Your task to perform on an android device: Empty the shopping cart on amazon. Add "dell alienware" to the cart on amazon Image 0: 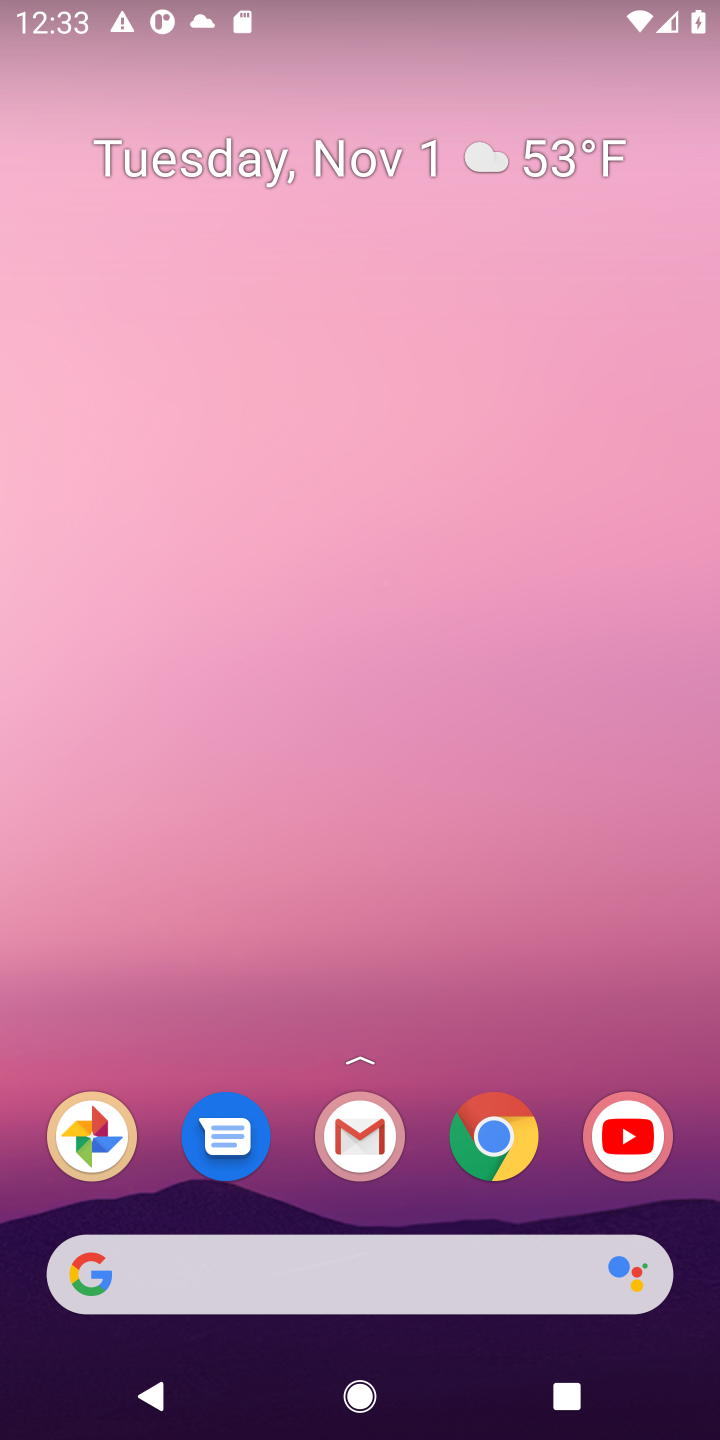
Step 0: press home button
Your task to perform on an android device: Empty the shopping cart on amazon. Add "dell alienware" to the cart on amazon Image 1: 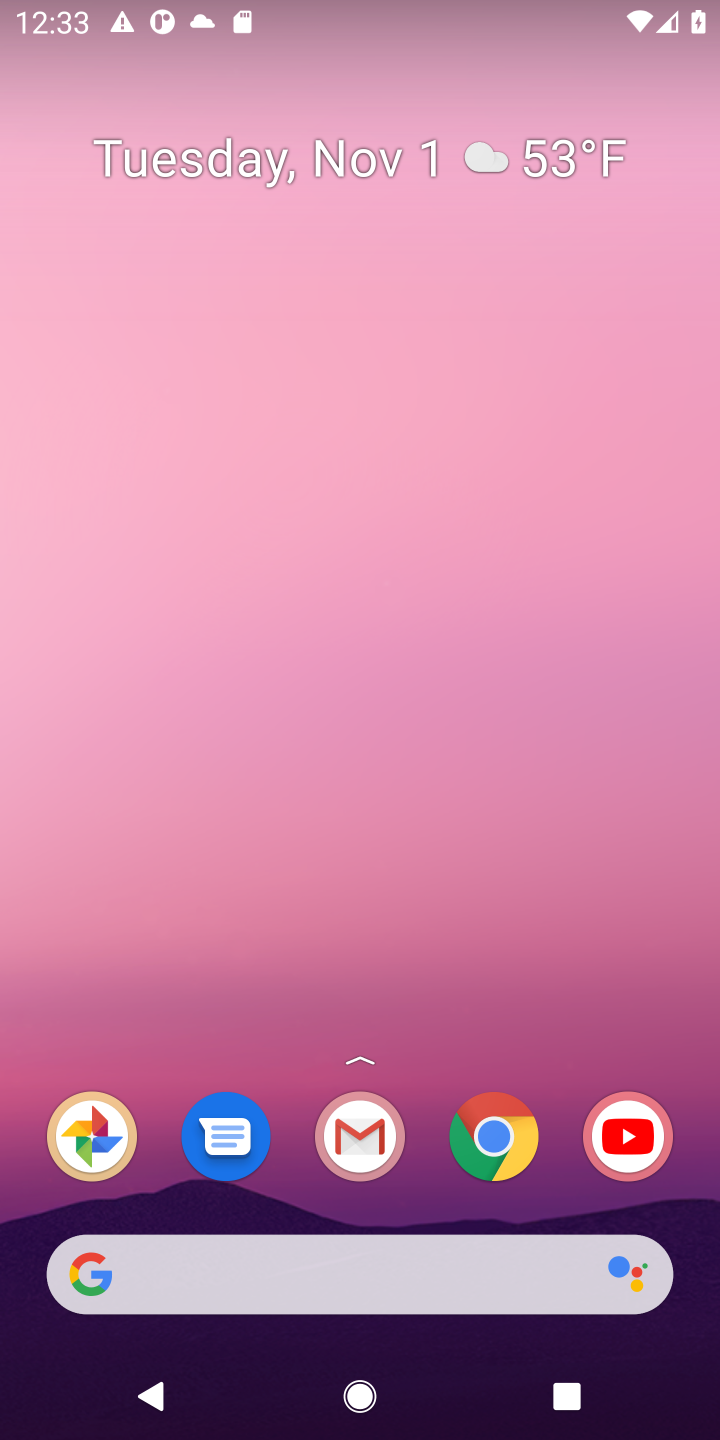
Step 1: click (187, 1287)
Your task to perform on an android device: Empty the shopping cart on amazon. Add "dell alienware" to the cart on amazon Image 2: 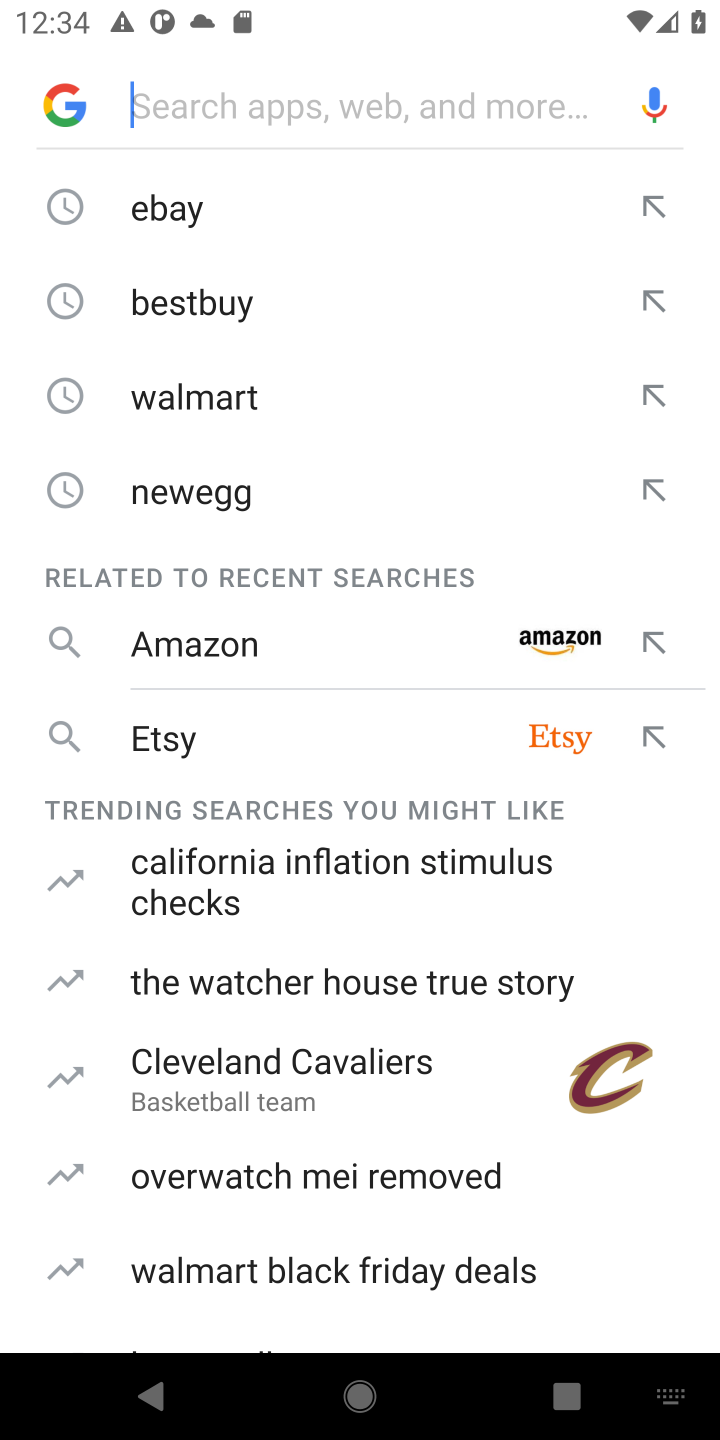
Step 2: type "amazon"
Your task to perform on an android device: Empty the shopping cart on amazon. Add "dell alienware" to the cart on amazon Image 3: 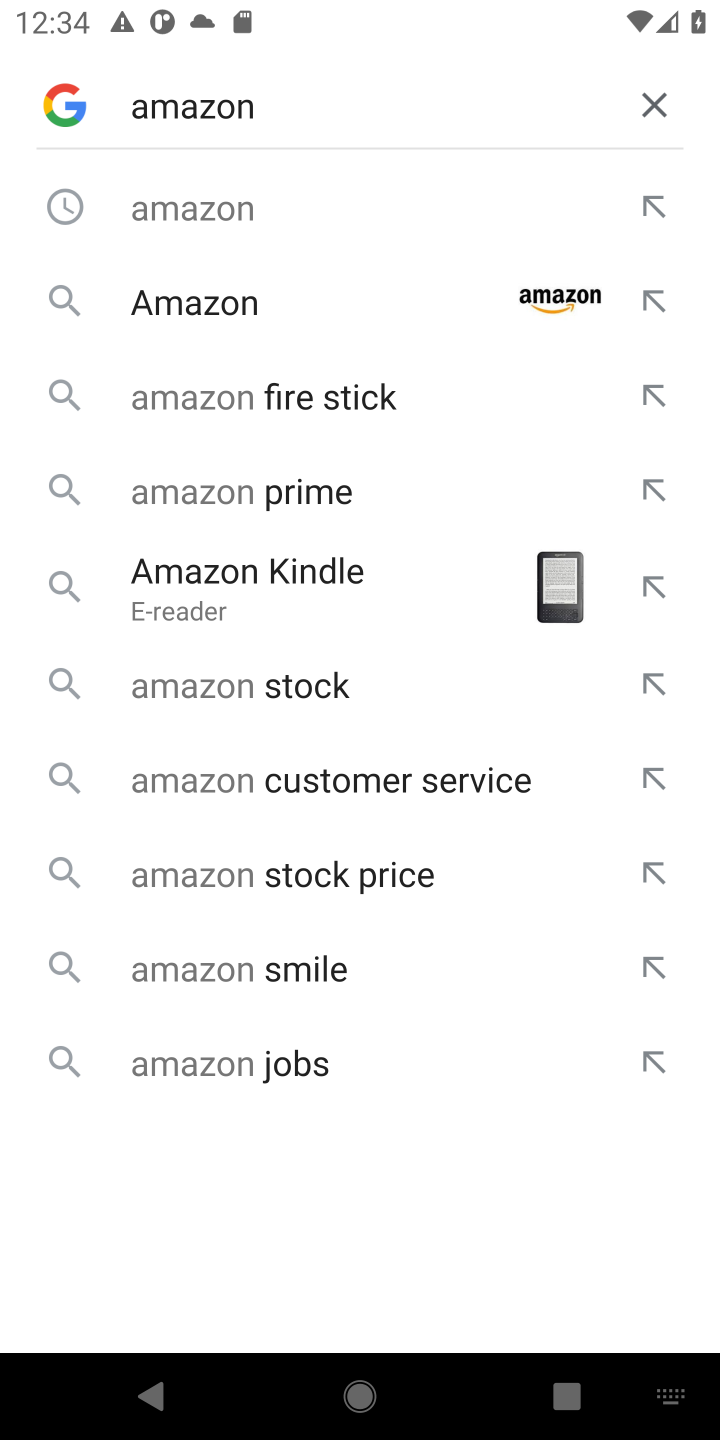
Step 3: press enter
Your task to perform on an android device: Empty the shopping cart on amazon. Add "dell alienware" to the cart on amazon Image 4: 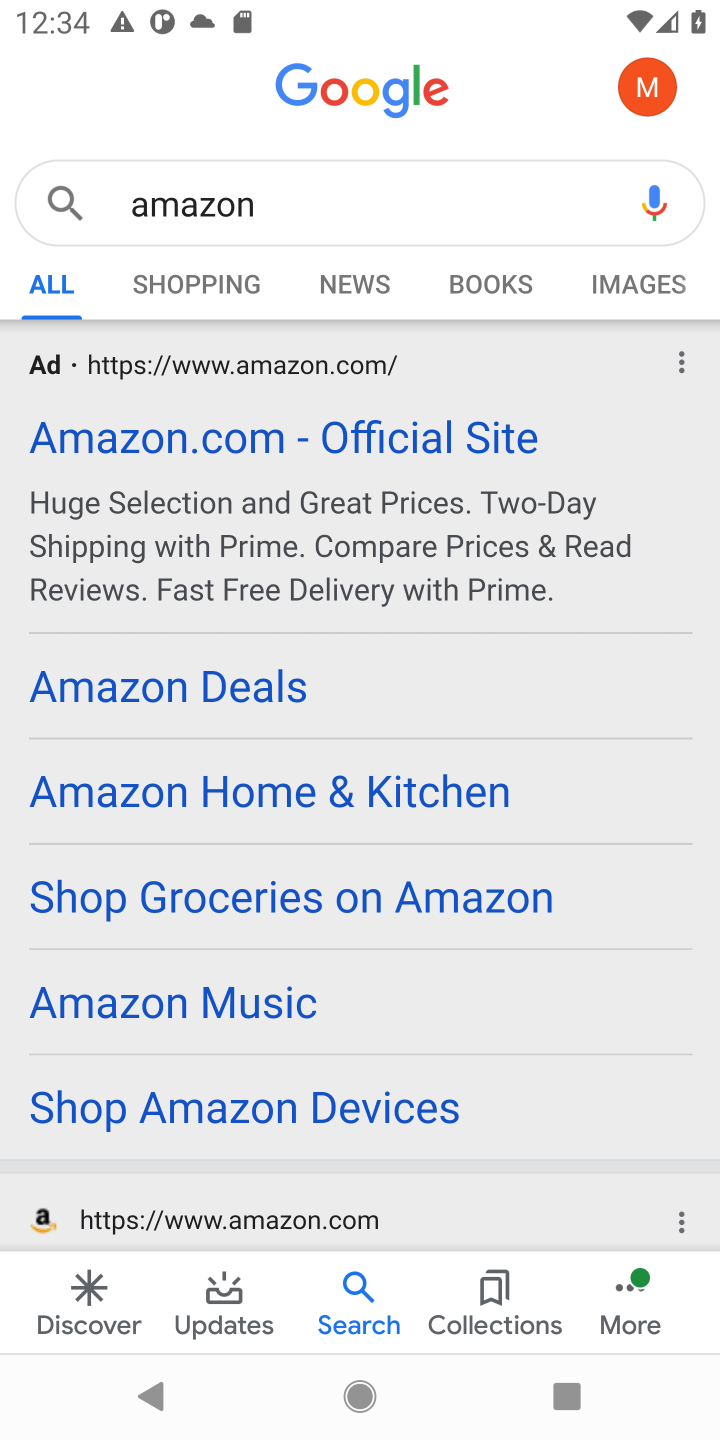
Step 4: click (179, 270)
Your task to perform on an android device: Empty the shopping cart on amazon. Add "dell alienware" to the cart on amazon Image 5: 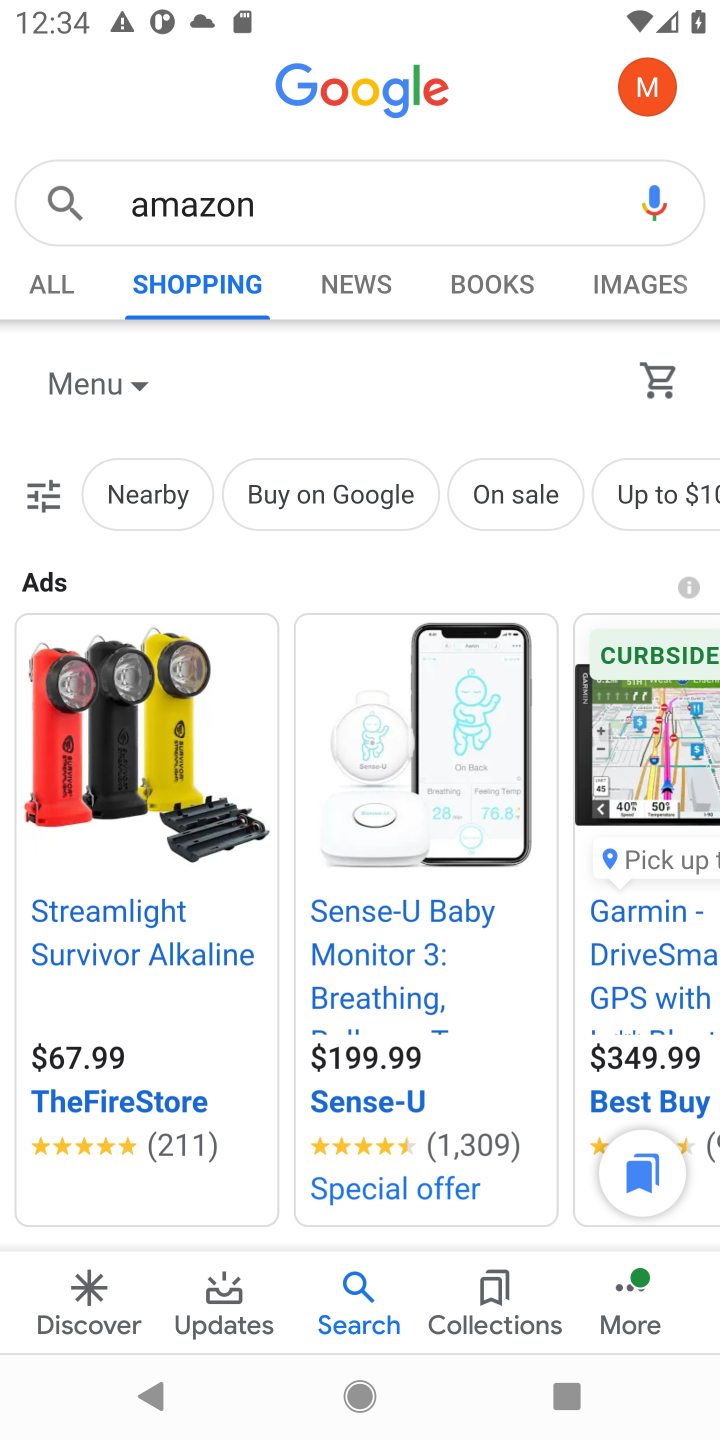
Step 5: drag from (366, 1064) to (442, 365)
Your task to perform on an android device: Empty the shopping cart on amazon. Add "dell alienware" to the cart on amazon Image 6: 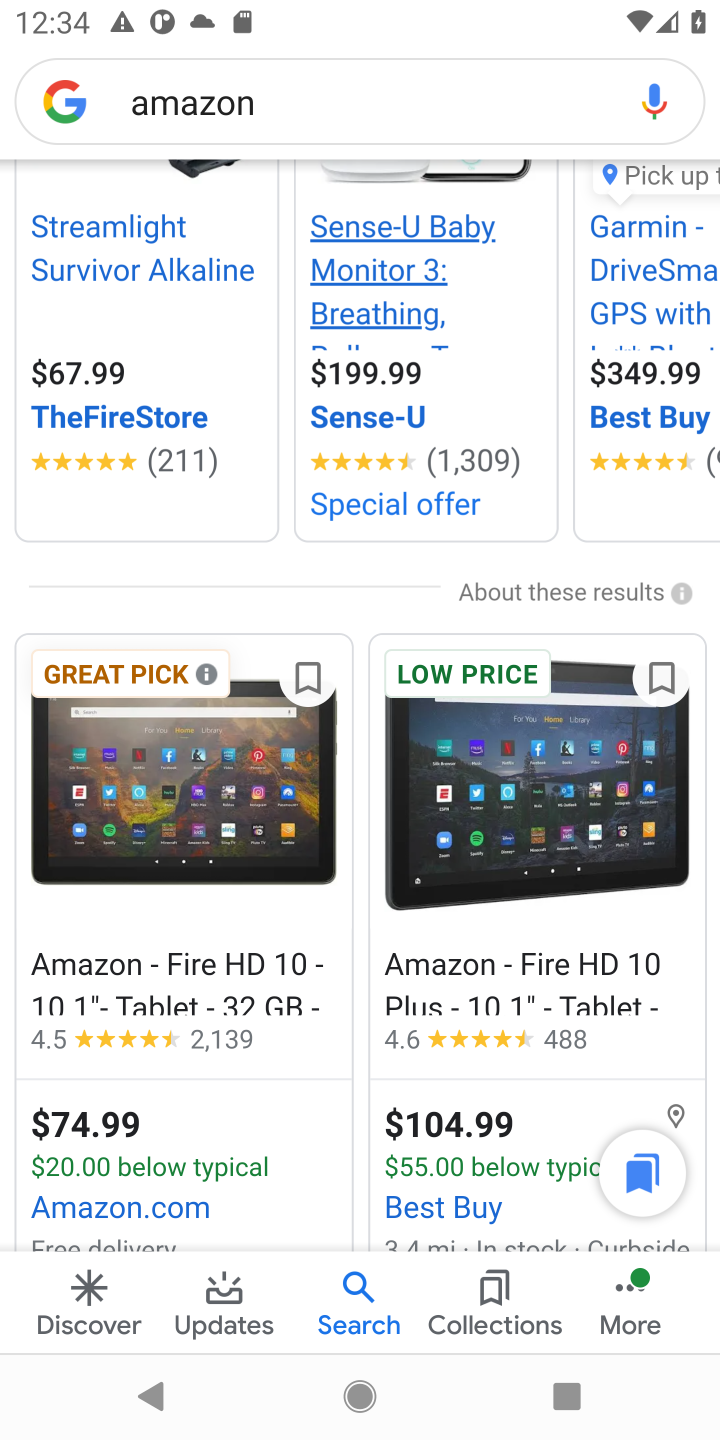
Step 6: drag from (371, 975) to (435, 223)
Your task to perform on an android device: Empty the shopping cart on amazon. Add "dell alienware" to the cart on amazon Image 7: 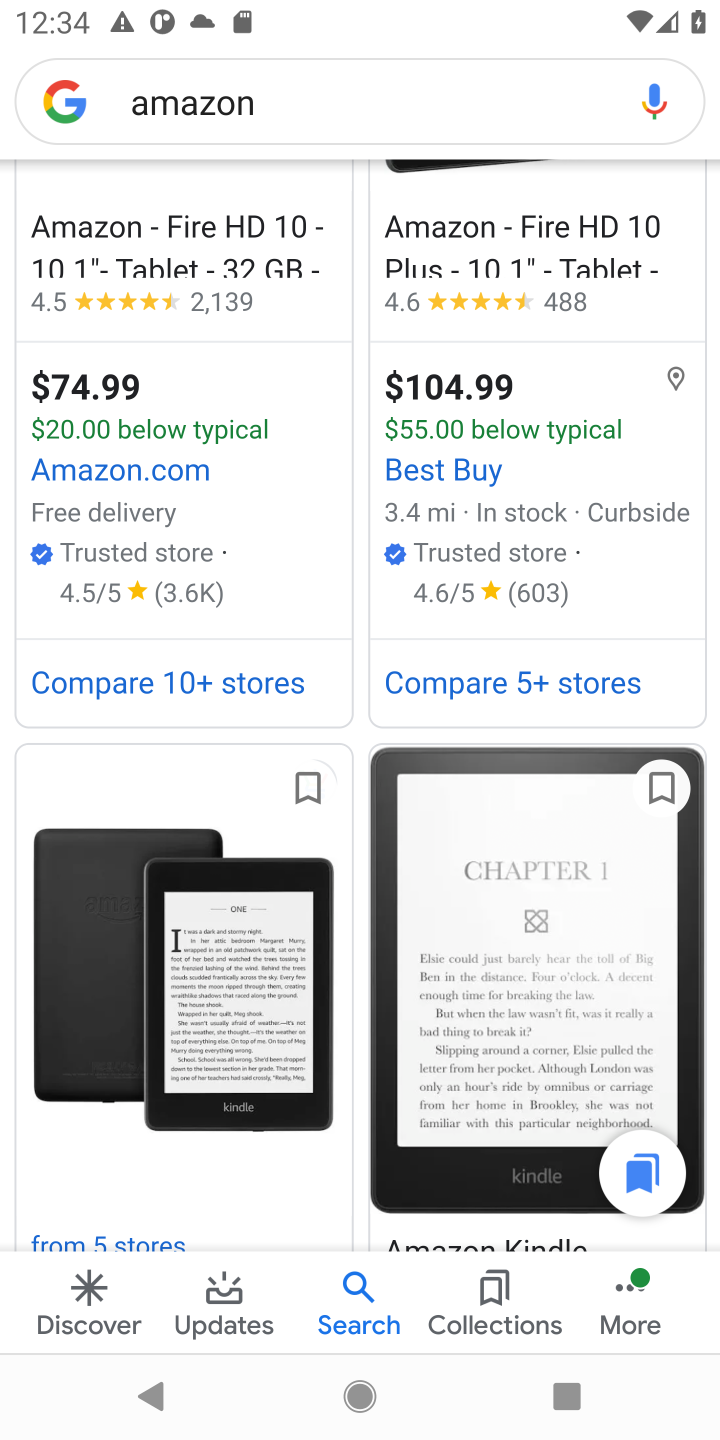
Step 7: press back button
Your task to perform on an android device: Empty the shopping cart on amazon. Add "dell alienware" to the cart on amazon Image 8: 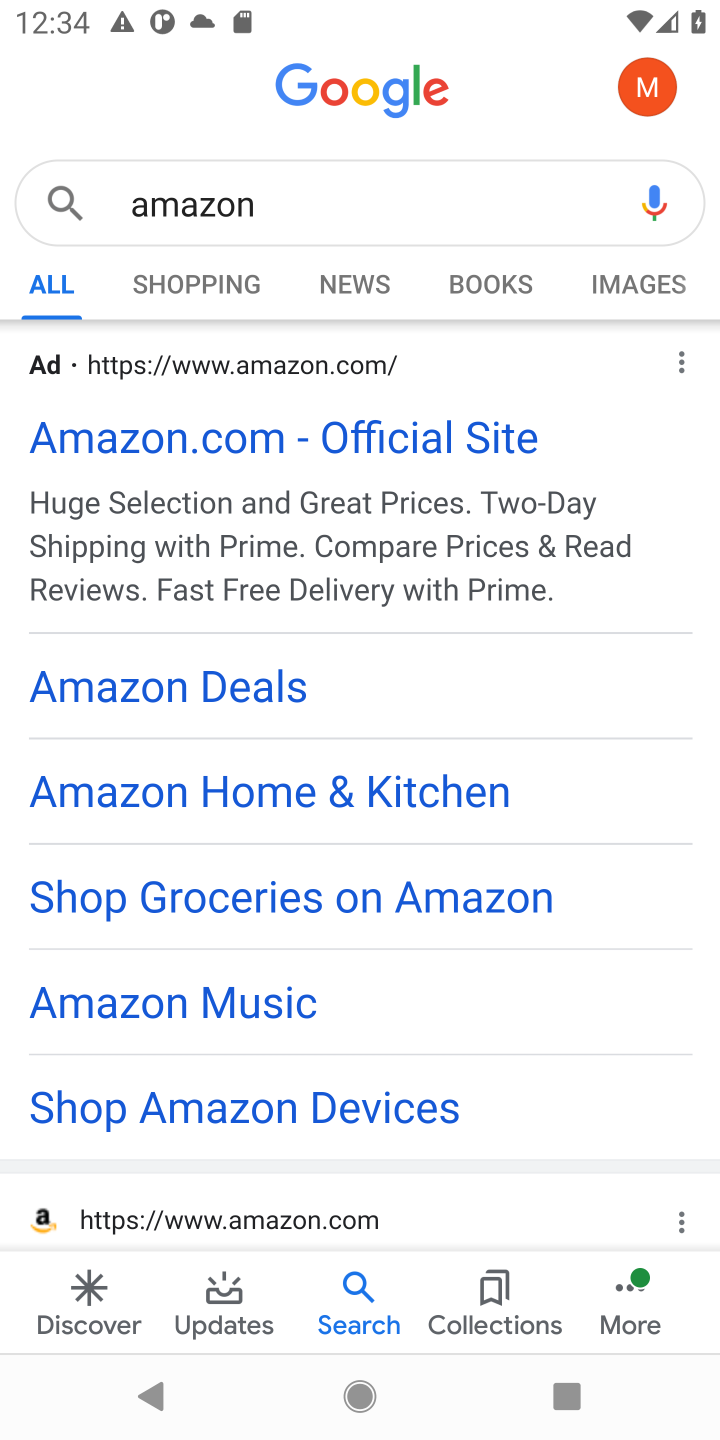
Step 8: click (163, 446)
Your task to perform on an android device: Empty the shopping cart on amazon. Add "dell alienware" to the cart on amazon Image 9: 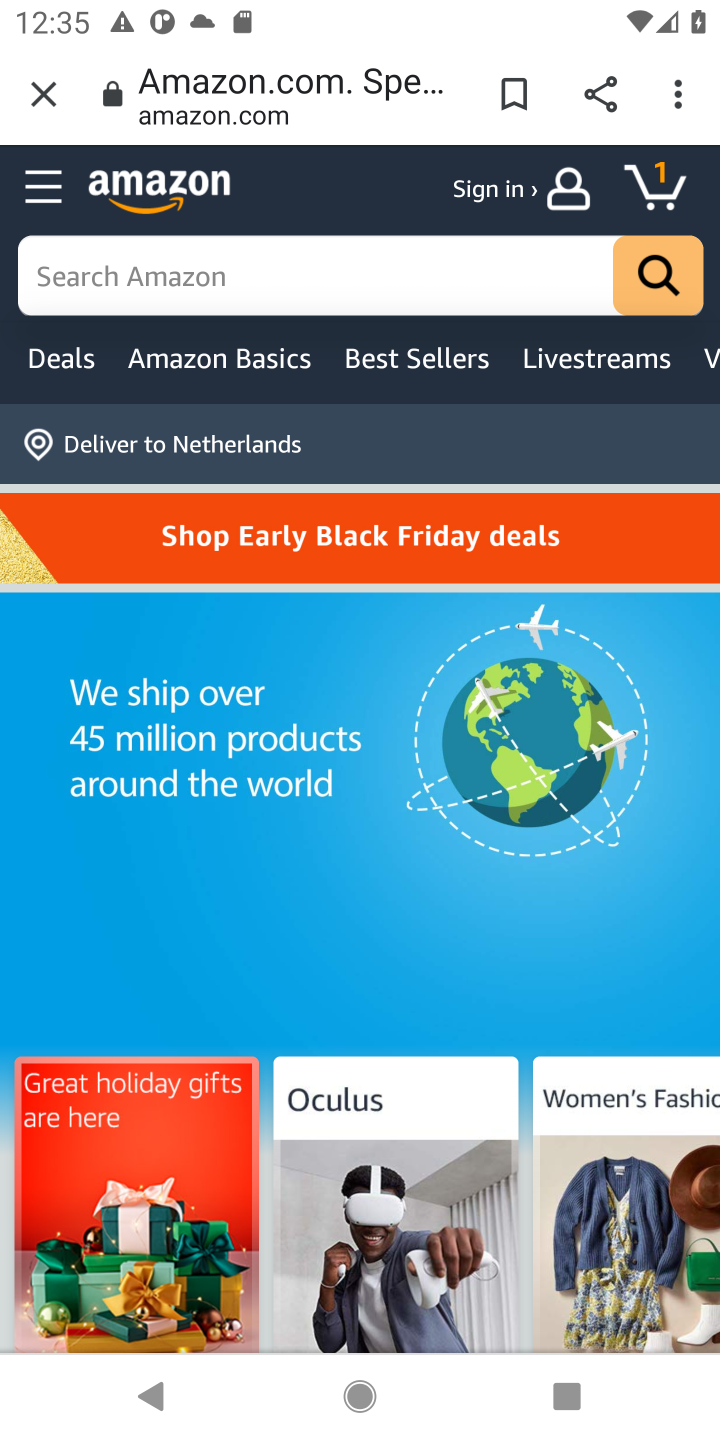
Step 9: click (664, 176)
Your task to perform on an android device: Empty the shopping cart on amazon. Add "dell alienware" to the cart on amazon Image 10: 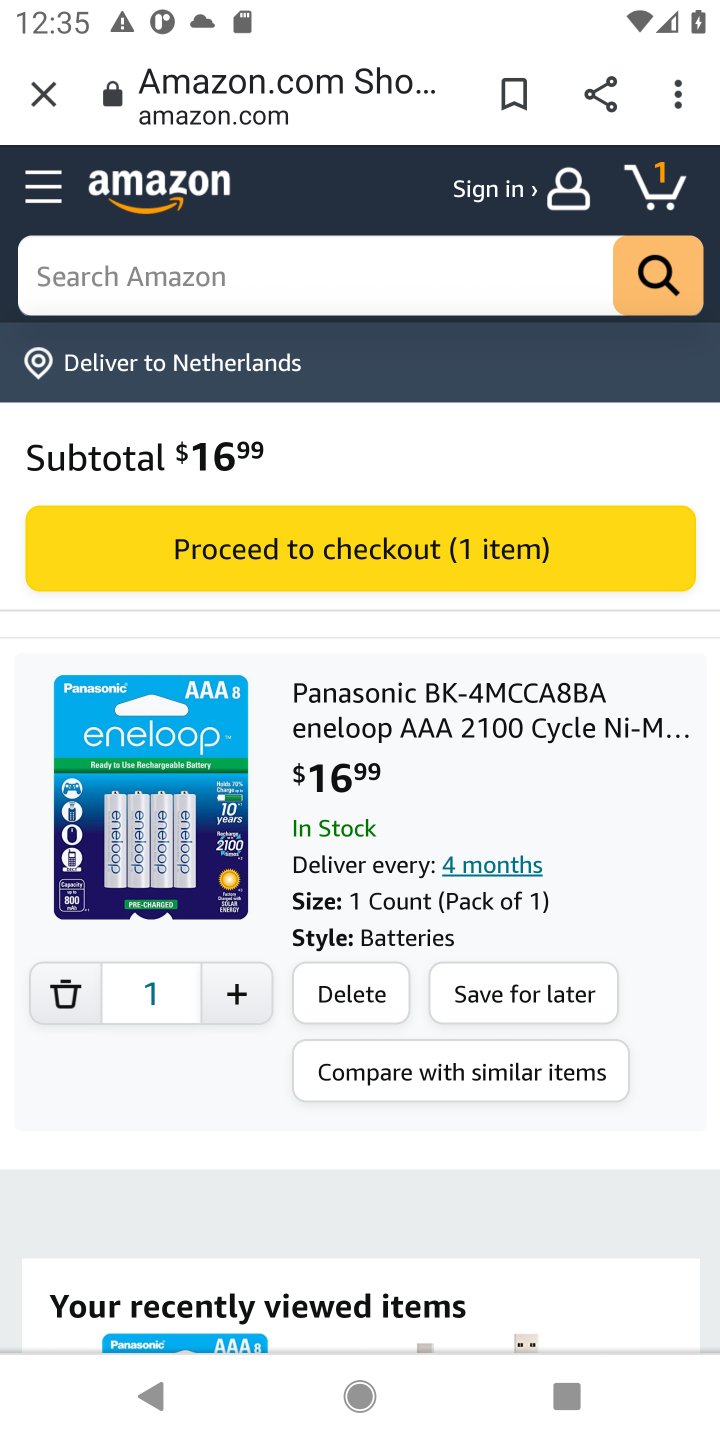
Step 10: click (665, 180)
Your task to perform on an android device: Empty the shopping cart on amazon. Add "dell alienware" to the cart on amazon Image 11: 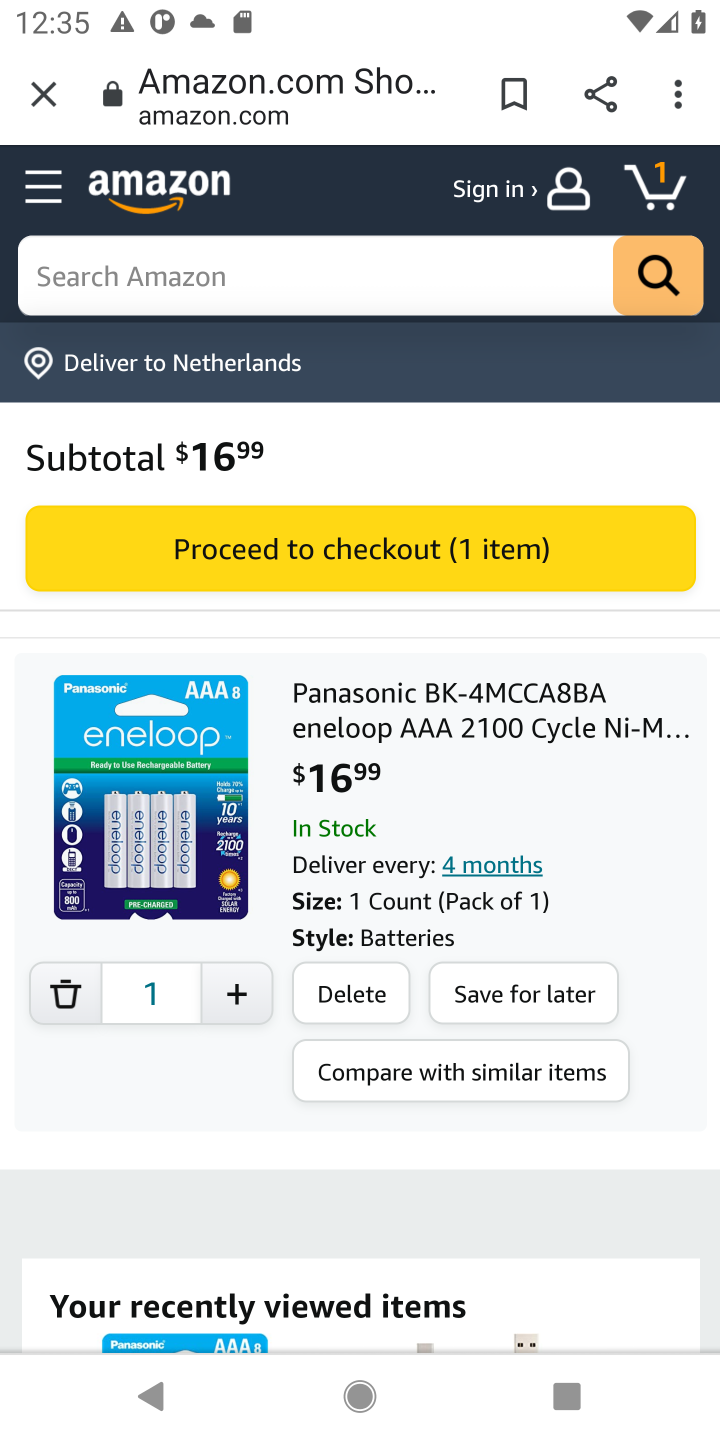
Step 11: click (639, 182)
Your task to perform on an android device: Empty the shopping cart on amazon. Add "dell alienware" to the cart on amazon Image 12: 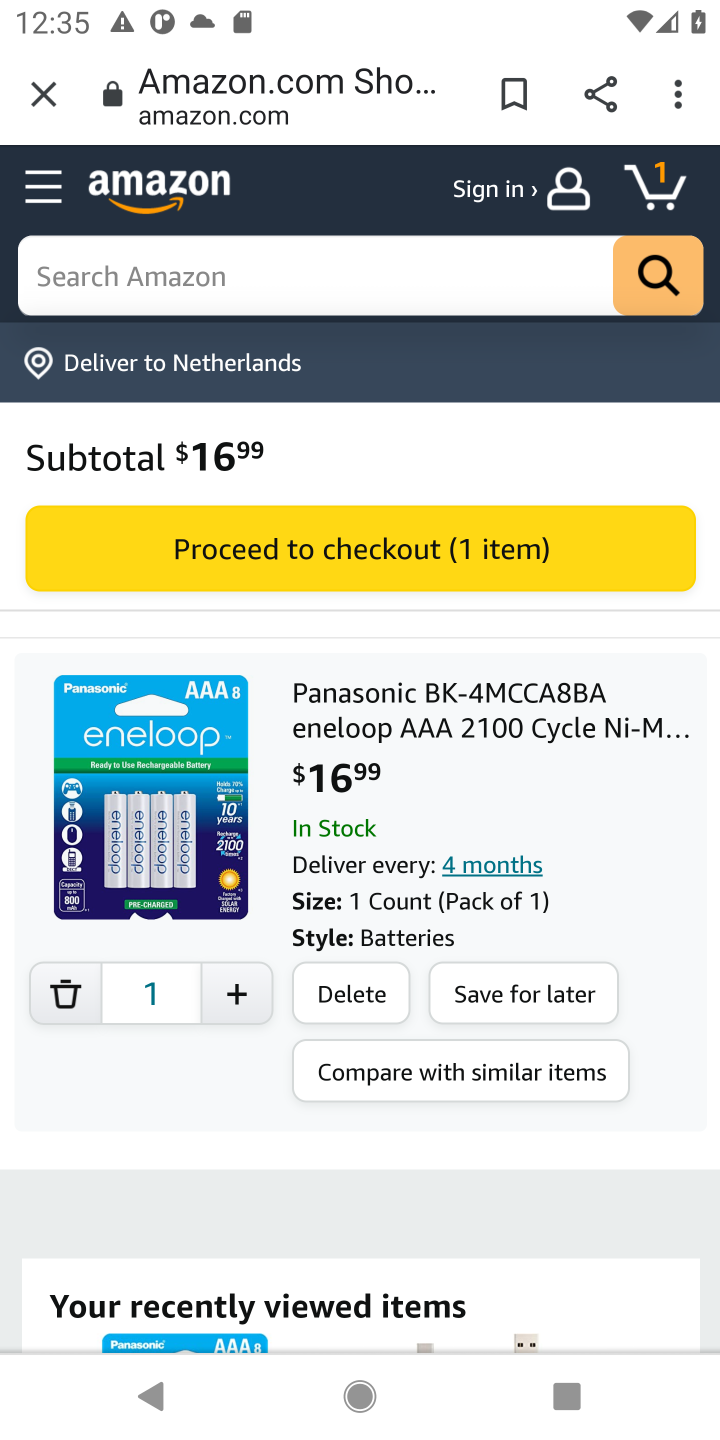
Step 12: click (644, 174)
Your task to perform on an android device: Empty the shopping cart on amazon. Add "dell alienware" to the cart on amazon Image 13: 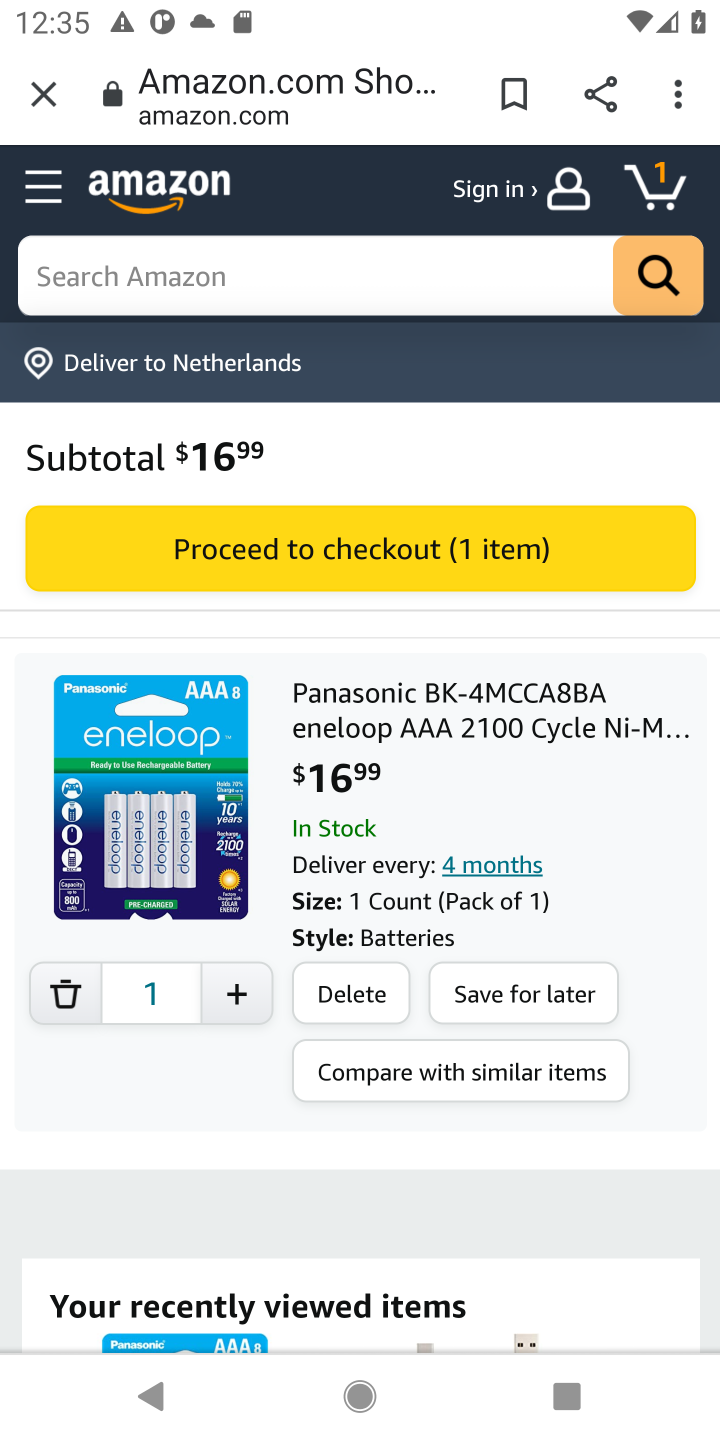
Step 13: click (360, 995)
Your task to perform on an android device: Empty the shopping cart on amazon. Add "dell alienware" to the cart on amazon Image 14: 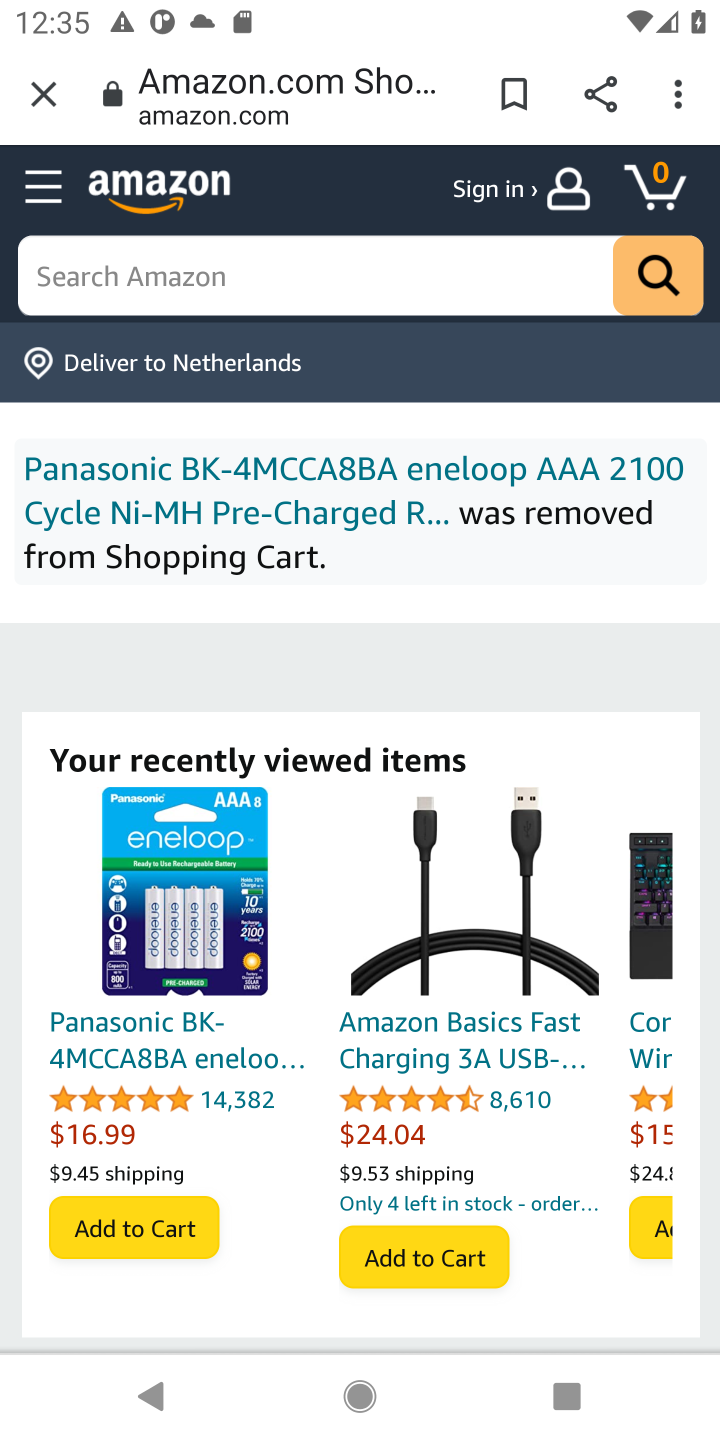
Step 14: click (84, 266)
Your task to perform on an android device: Empty the shopping cart on amazon. Add "dell alienware" to the cart on amazon Image 15: 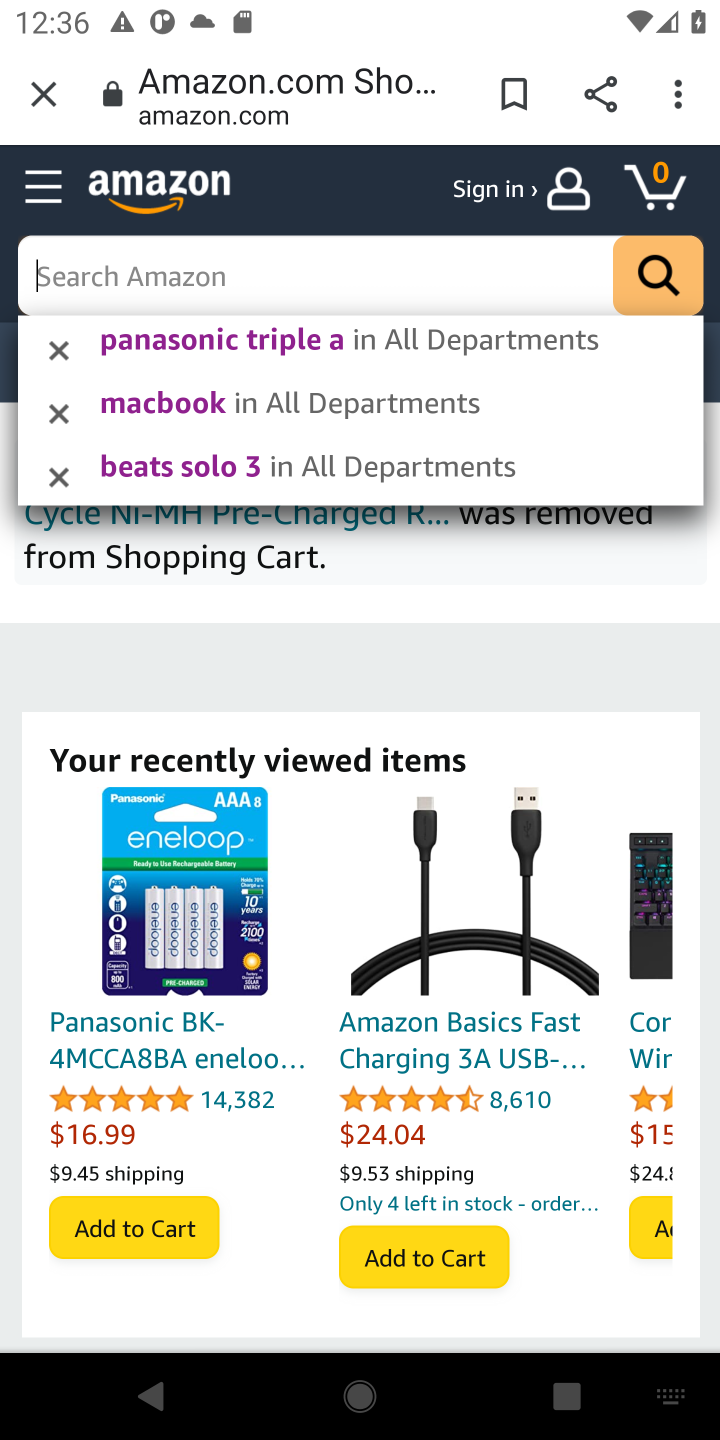
Step 15: type "dell alienware"
Your task to perform on an android device: Empty the shopping cart on amazon. Add "dell alienware" to the cart on amazon Image 16: 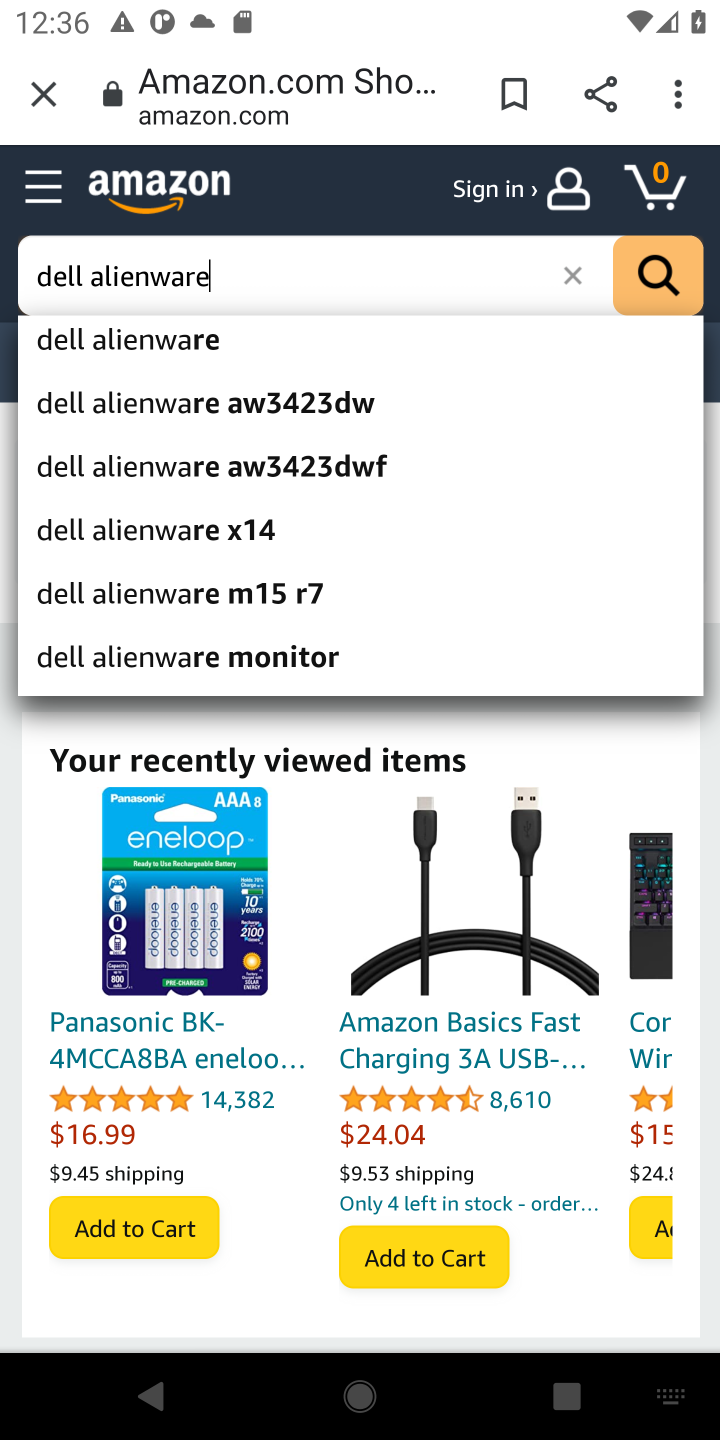
Step 16: press enter
Your task to perform on an android device: Empty the shopping cart on amazon. Add "dell alienware" to the cart on amazon Image 17: 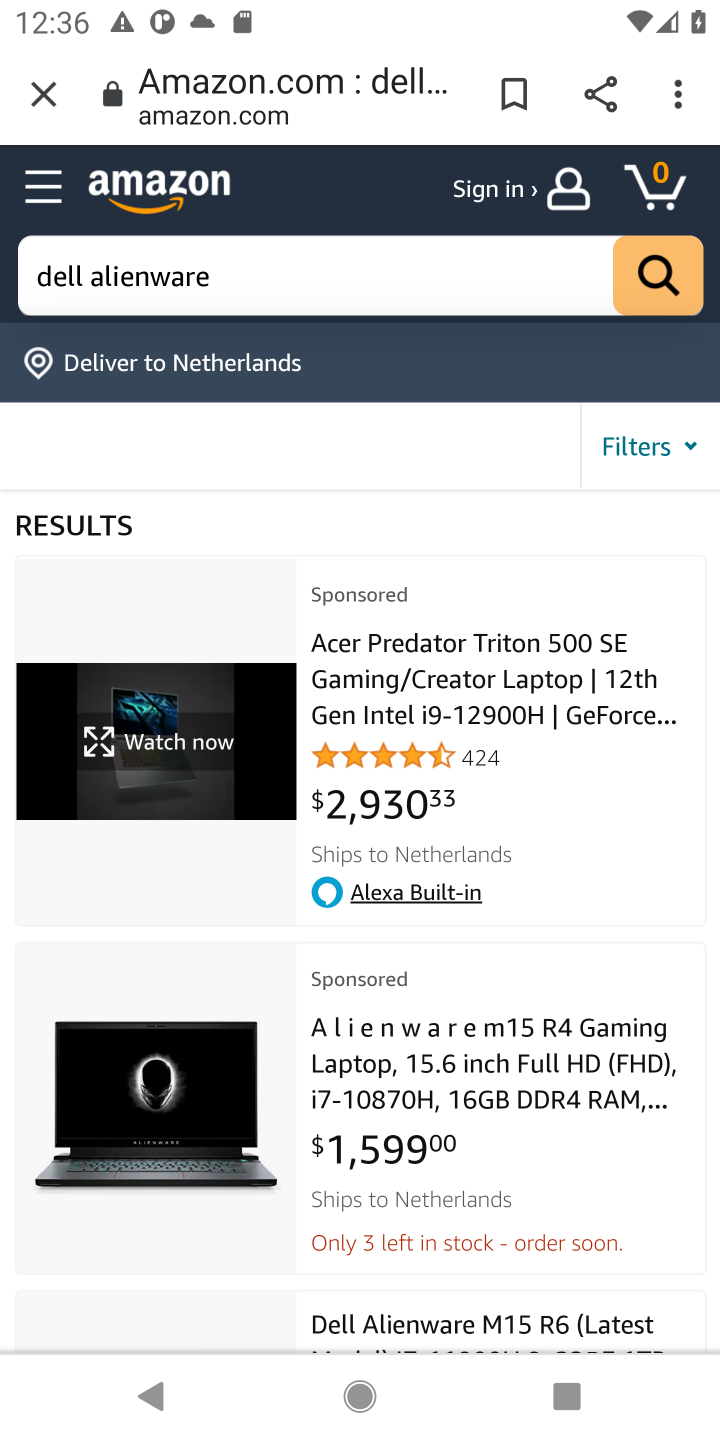
Step 17: drag from (457, 986) to (474, 457)
Your task to perform on an android device: Empty the shopping cart on amazon. Add "dell alienware" to the cart on amazon Image 18: 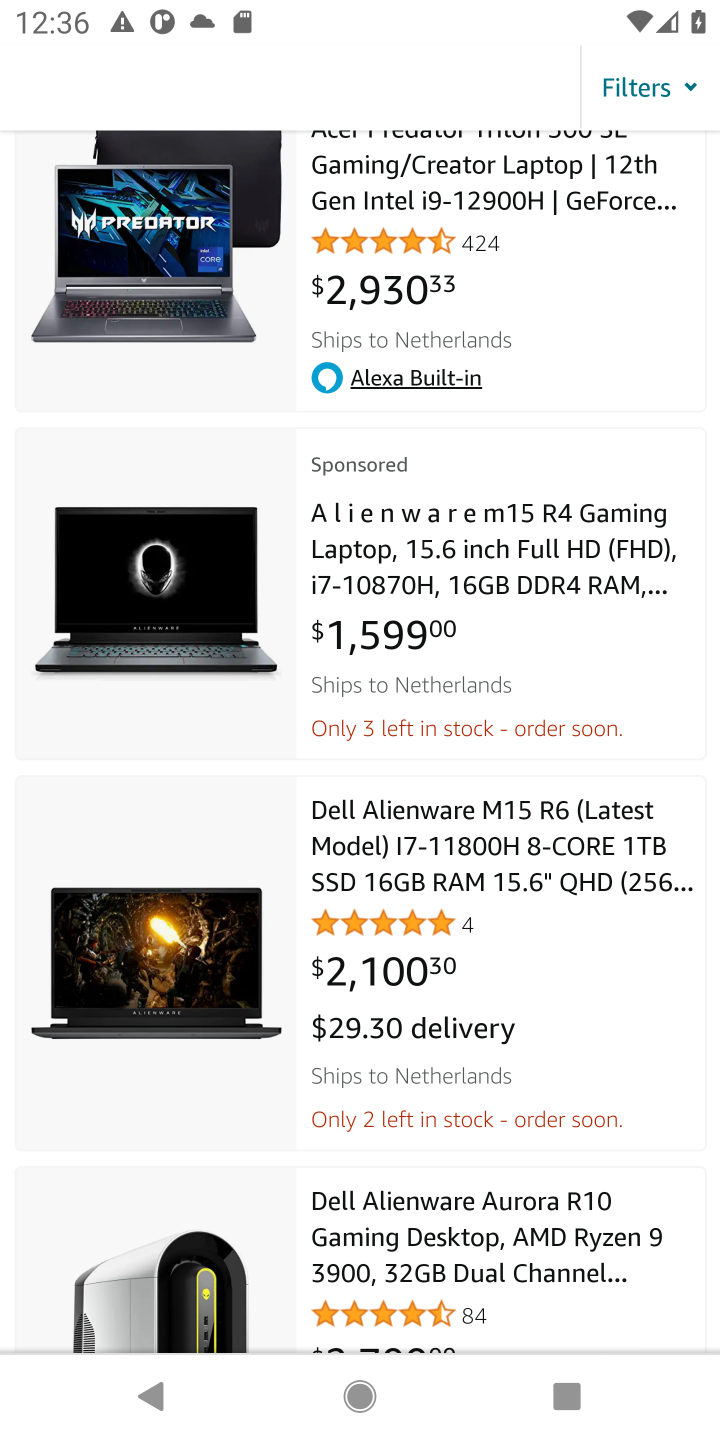
Step 18: click (417, 832)
Your task to perform on an android device: Empty the shopping cart on amazon. Add "dell alienware" to the cart on amazon Image 19: 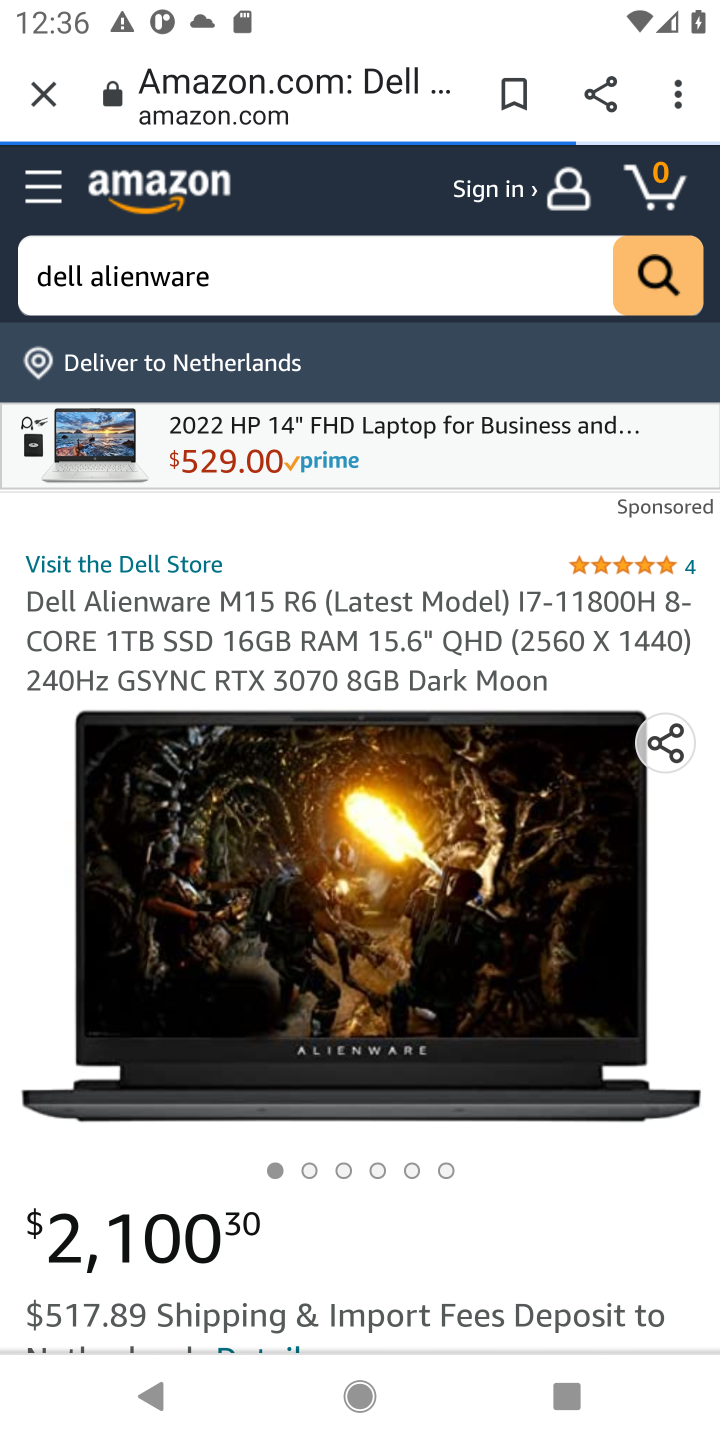
Step 19: drag from (443, 1071) to (516, 503)
Your task to perform on an android device: Empty the shopping cart on amazon. Add "dell alienware" to the cart on amazon Image 20: 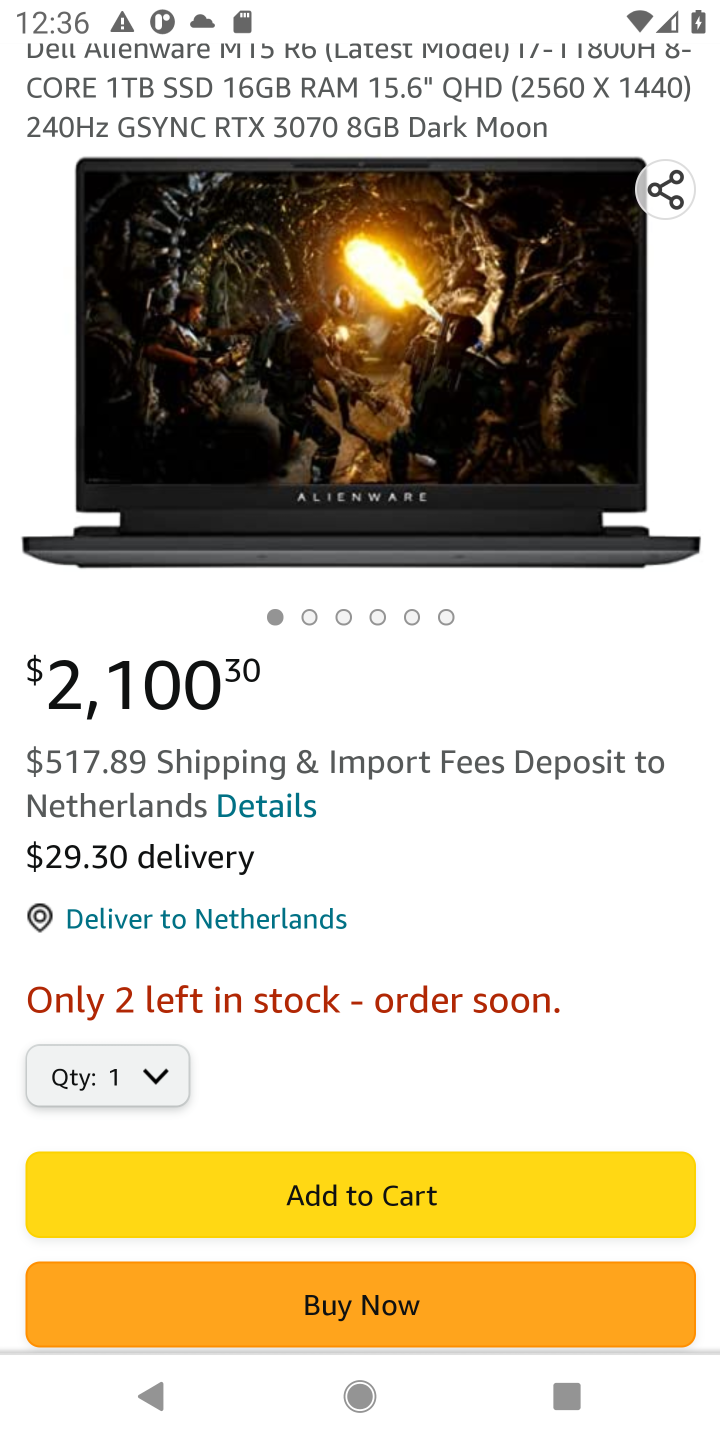
Step 20: drag from (433, 936) to (439, 254)
Your task to perform on an android device: Empty the shopping cart on amazon. Add "dell alienware" to the cart on amazon Image 21: 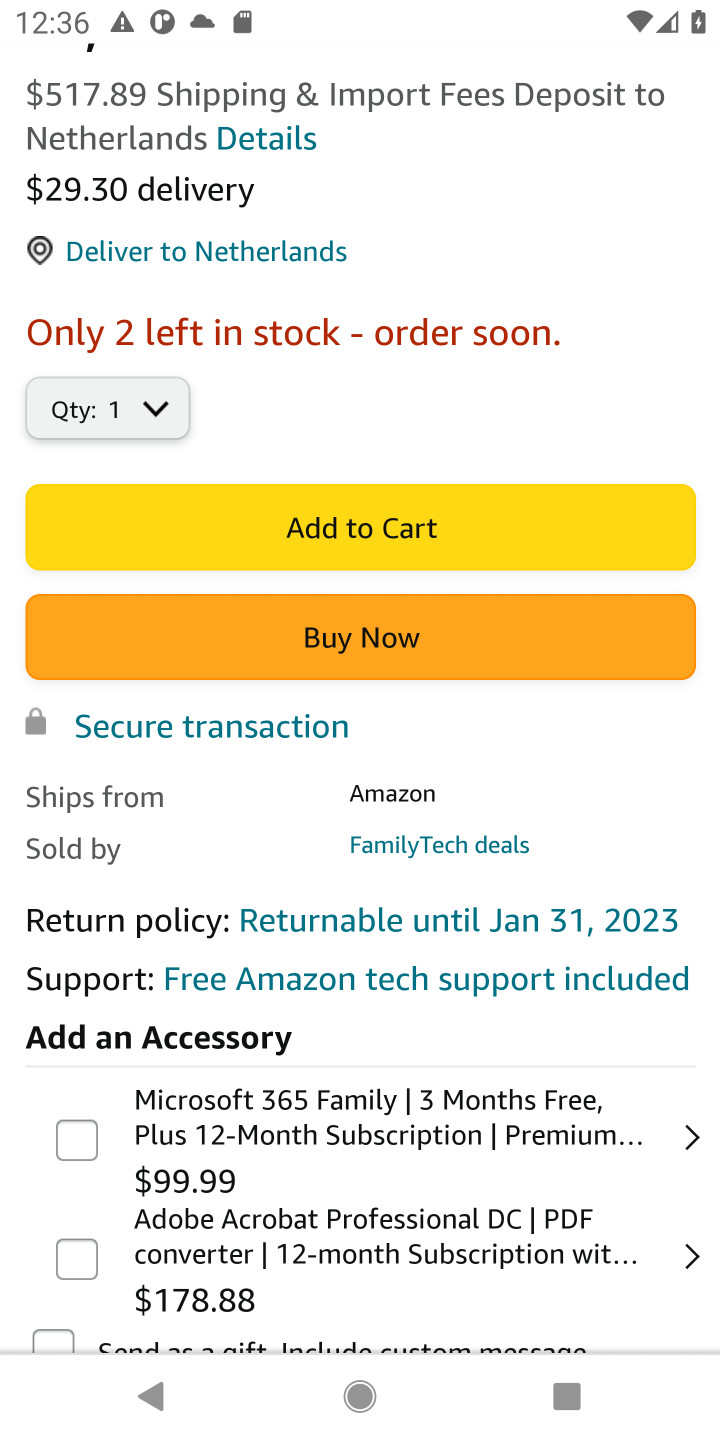
Step 21: click (371, 528)
Your task to perform on an android device: Empty the shopping cart on amazon. Add "dell alienware" to the cart on amazon Image 22: 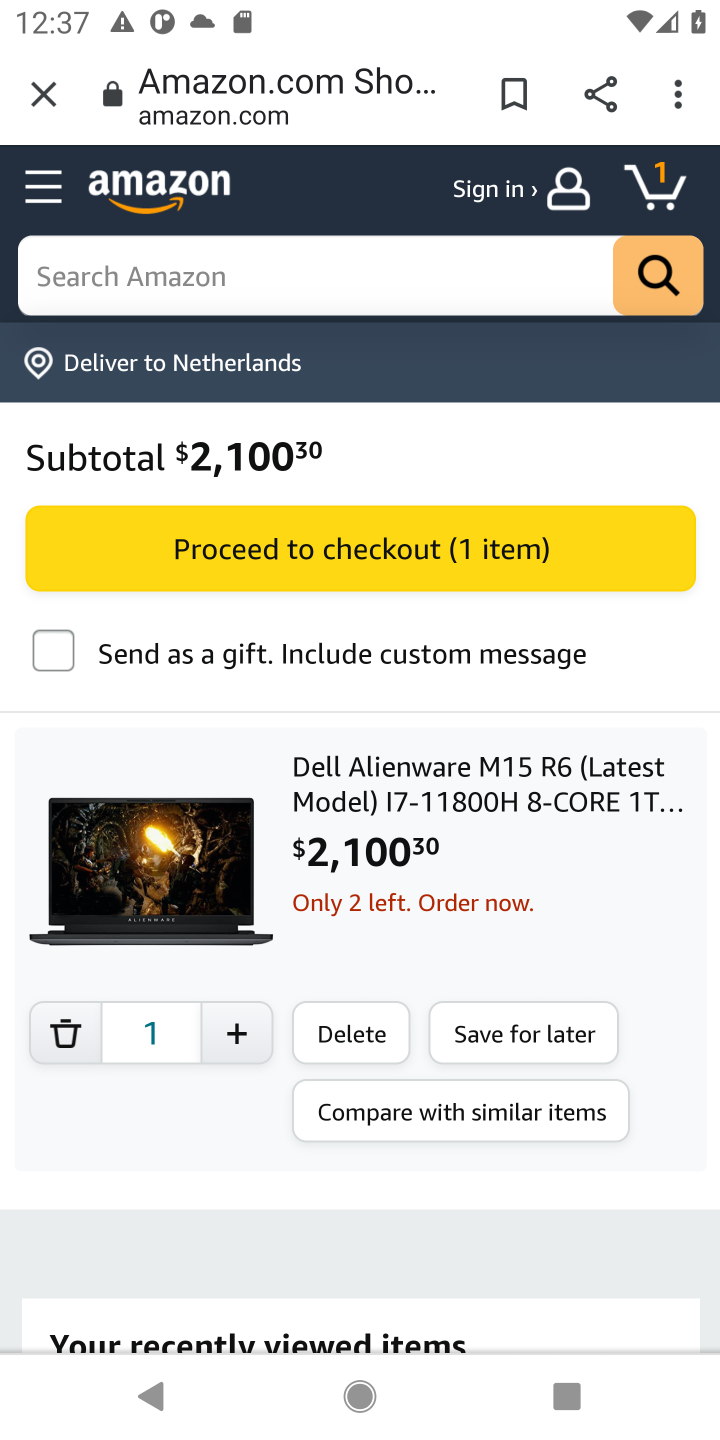
Step 22: task complete